Your task to perform on an android device: Go to Google maps Image 0: 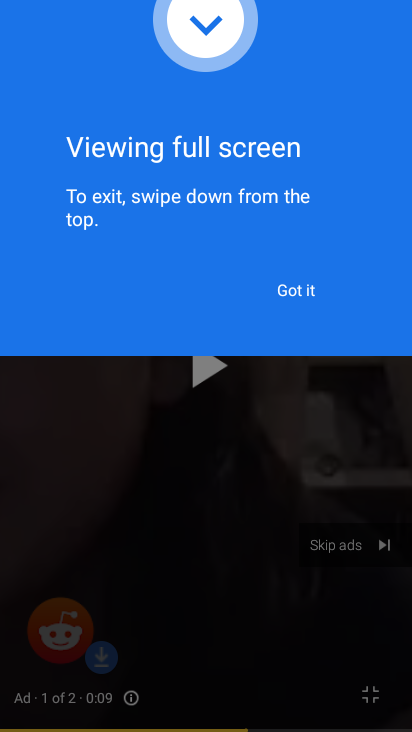
Step 0: press home button
Your task to perform on an android device: Go to Google maps Image 1: 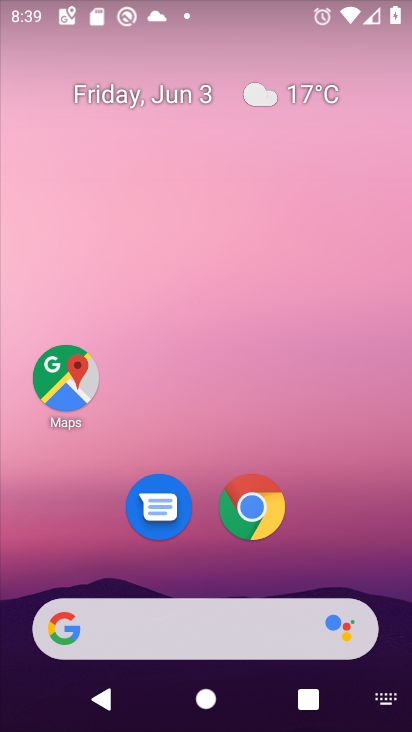
Step 1: click (74, 394)
Your task to perform on an android device: Go to Google maps Image 2: 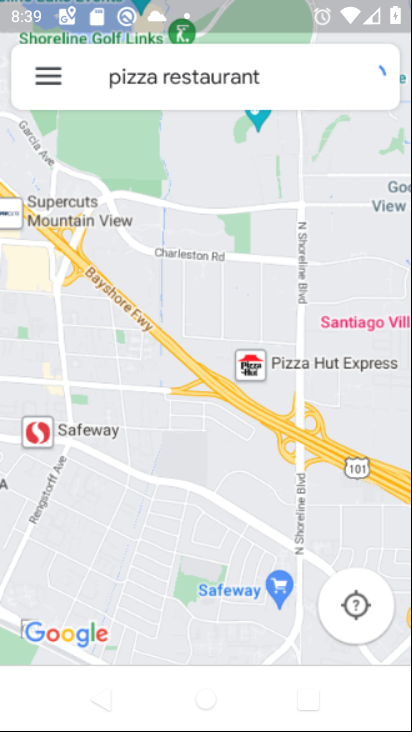
Step 2: task complete